Your task to perform on an android device: move a message to another label in the gmail app Image 0: 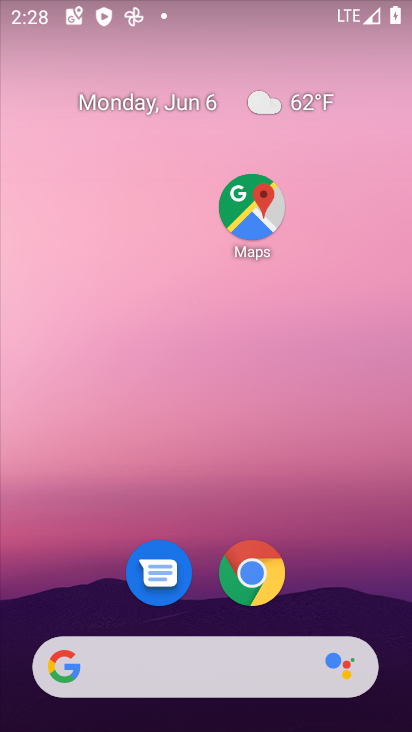
Step 0: drag from (201, 516) to (170, 0)
Your task to perform on an android device: move a message to another label in the gmail app Image 1: 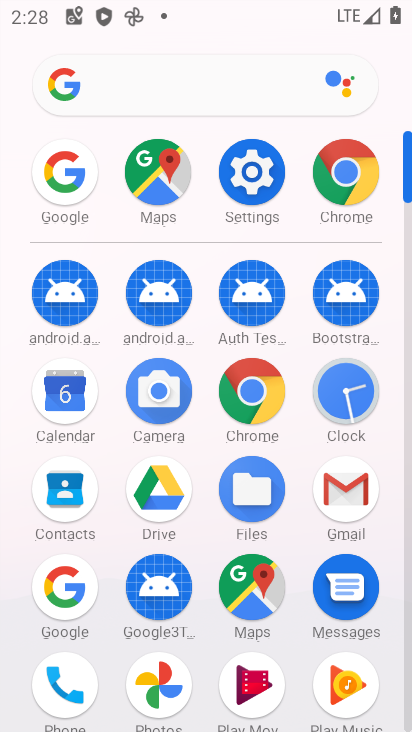
Step 1: click (346, 516)
Your task to perform on an android device: move a message to another label in the gmail app Image 2: 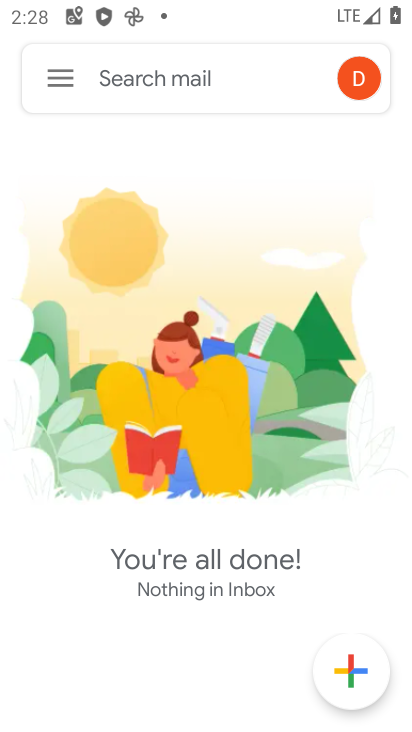
Step 2: task complete